Your task to perform on an android device: change notification settings in the gmail app Image 0: 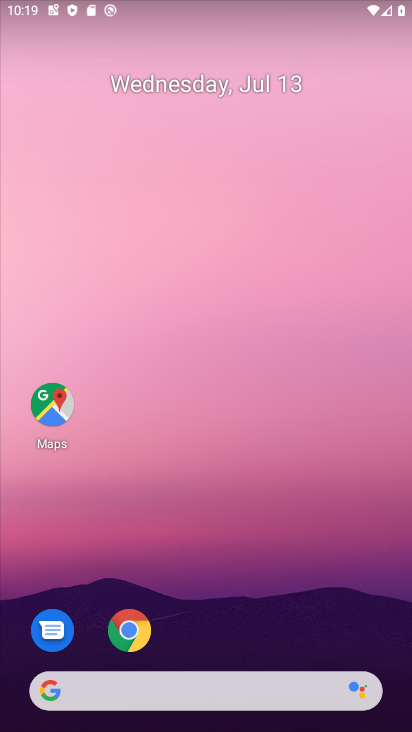
Step 0: drag from (272, 625) to (178, 41)
Your task to perform on an android device: change notification settings in the gmail app Image 1: 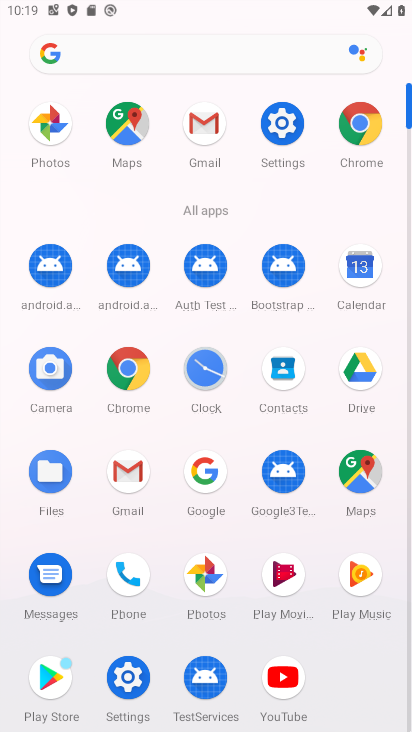
Step 1: click (210, 124)
Your task to perform on an android device: change notification settings in the gmail app Image 2: 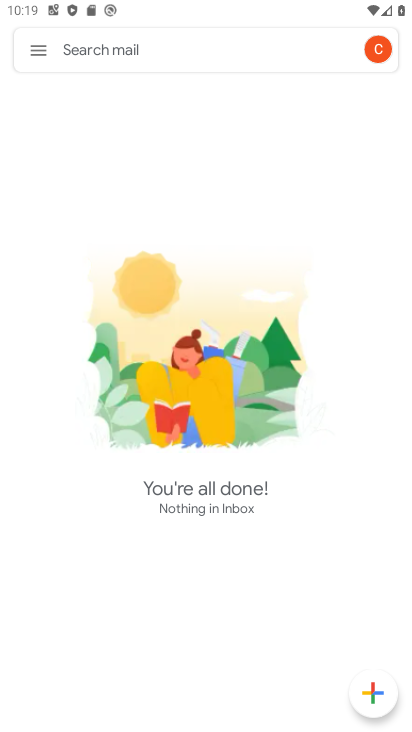
Step 2: click (40, 48)
Your task to perform on an android device: change notification settings in the gmail app Image 3: 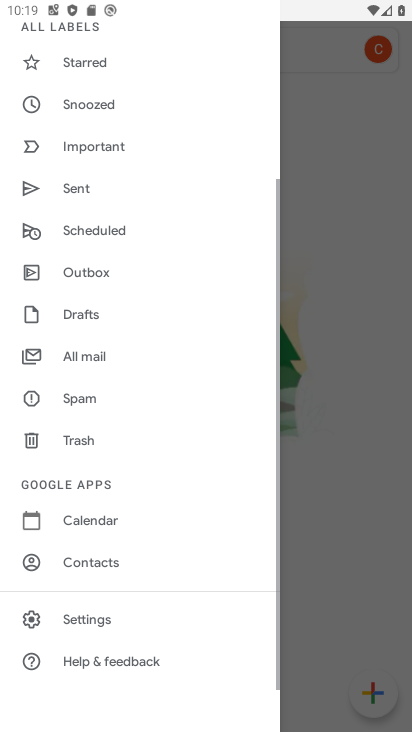
Step 3: drag from (157, 561) to (112, 211)
Your task to perform on an android device: change notification settings in the gmail app Image 4: 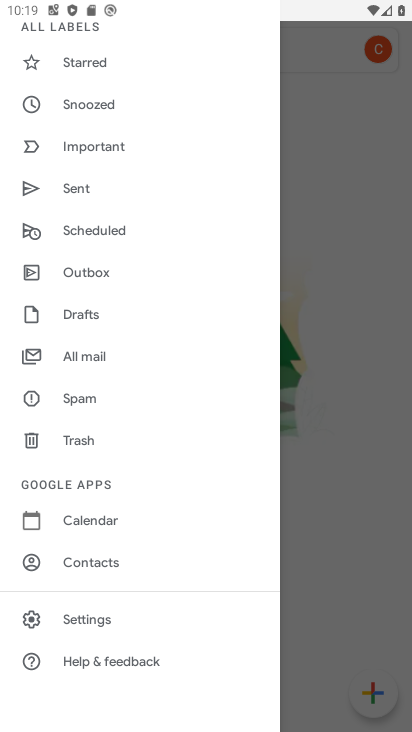
Step 4: click (89, 618)
Your task to perform on an android device: change notification settings in the gmail app Image 5: 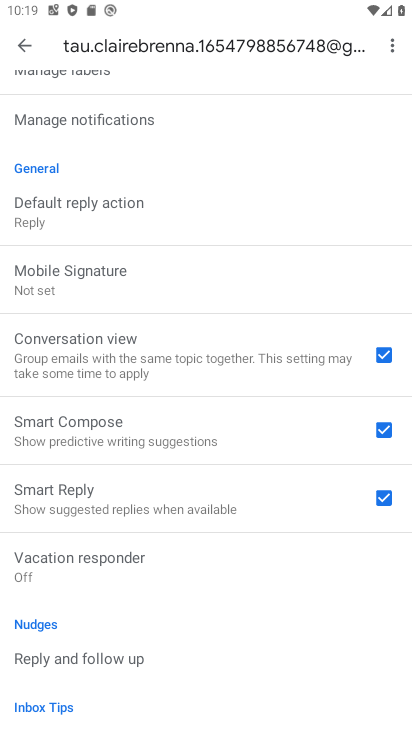
Step 5: drag from (84, 183) to (154, 662)
Your task to perform on an android device: change notification settings in the gmail app Image 6: 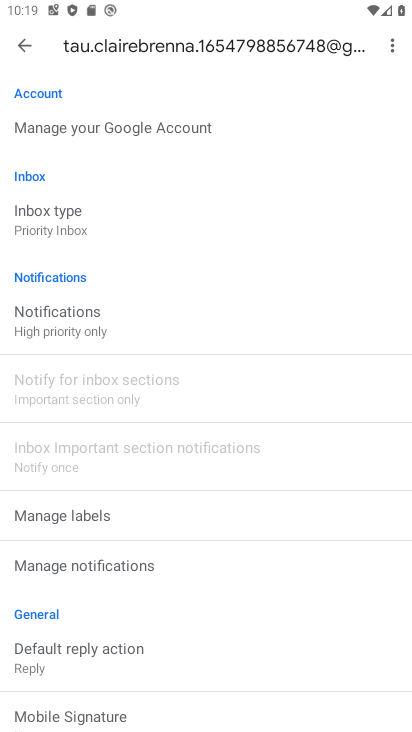
Step 6: click (41, 321)
Your task to perform on an android device: change notification settings in the gmail app Image 7: 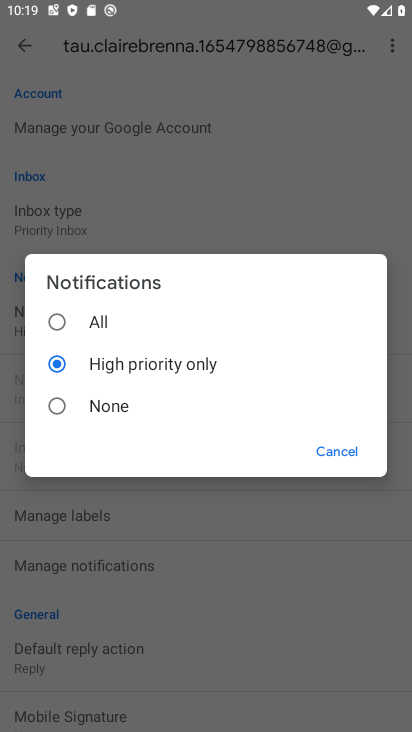
Step 7: click (53, 324)
Your task to perform on an android device: change notification settings in the gmail app Image 8: 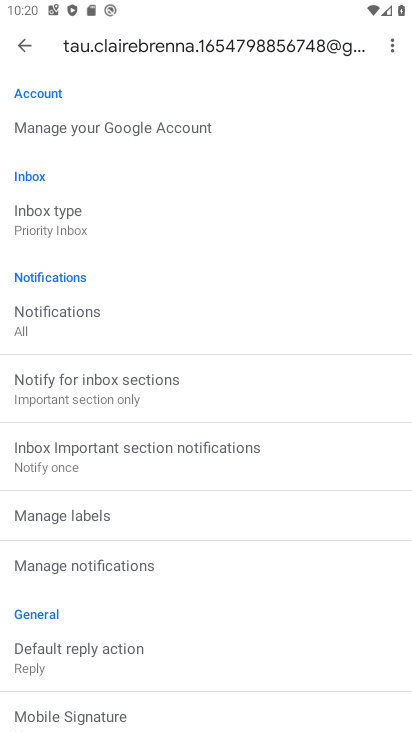
Step 8: task complete